Your task to perform on an android device: turn on sleep mode Image 0: 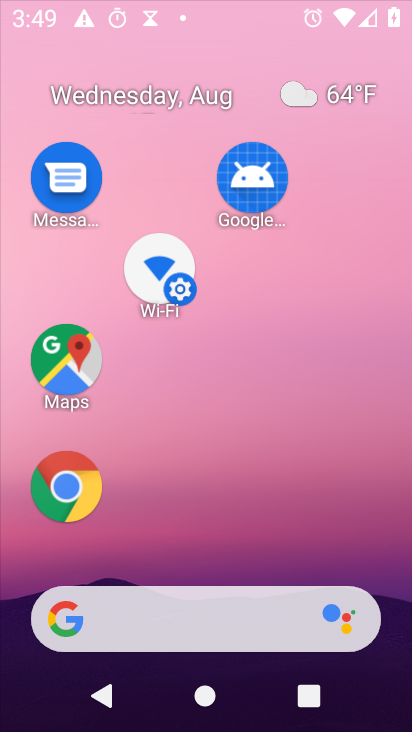
Step 0: press home button
Your task to perform on an android device: turn on sleep mode Image 1: 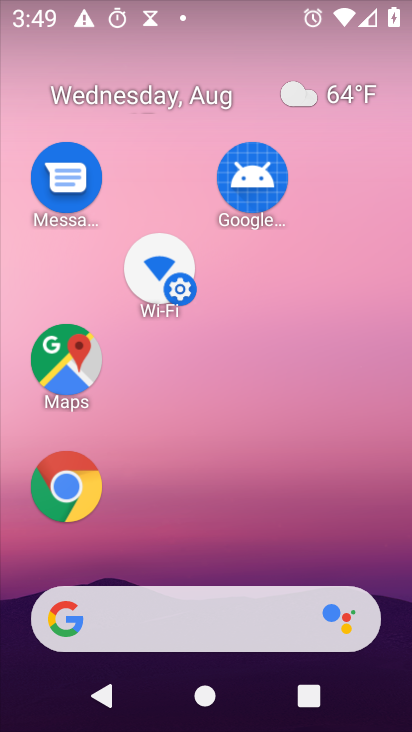
Step 1: drag from (195, 568) to (241, 0)
Your task to perform on an android device: turn on sleep mode Image 2: 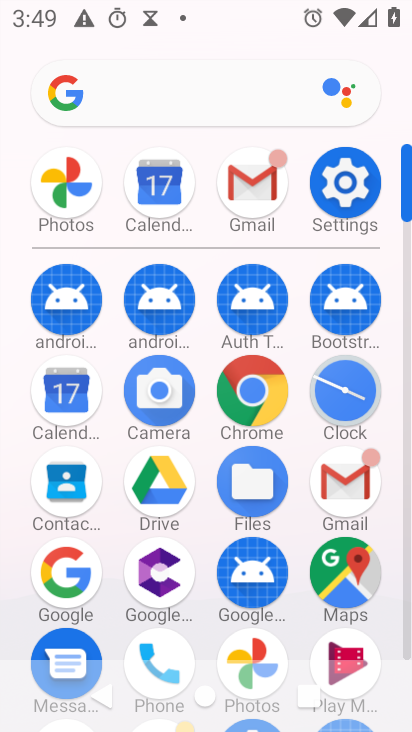
Step 2: click (341, 172)
Your task to perform on an android device: turn on sleep mode Image 3: 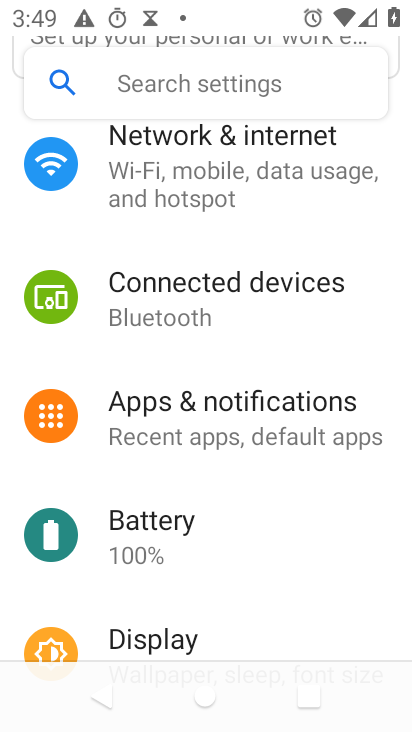
Step 3: click (148, 643)
Your task to perform on an android device: turn on sleep mode Image 4: 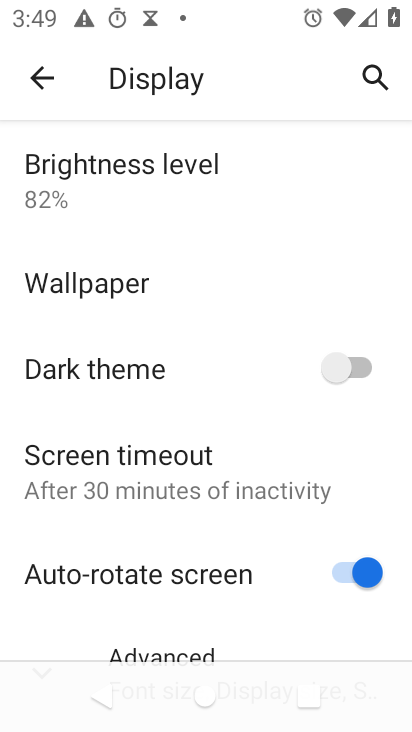
Step 4: task complete